Your task to perform on an android device: Show me recent news Image 0: 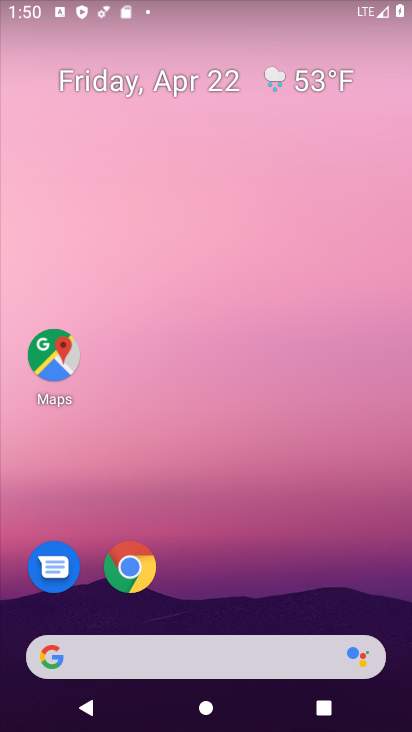
Step 0: drag from (17, 200) to (405, 280)
Your task to perform on an android device: Show me recent news Image 1: 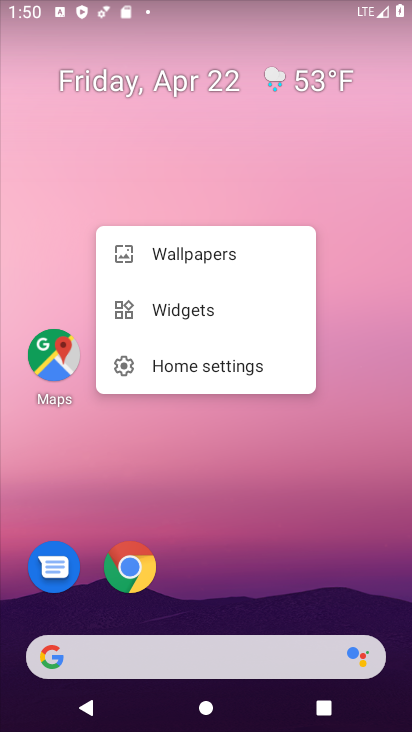
Step 1: task complete